Your task to perform on an android device: Open eBay Image 0: 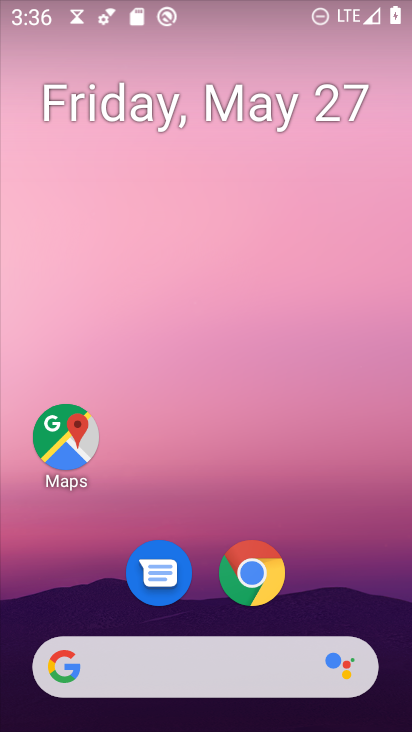
Step 0: click (253, 565)
Your task to perform on an android device: Open eBay Image 1: 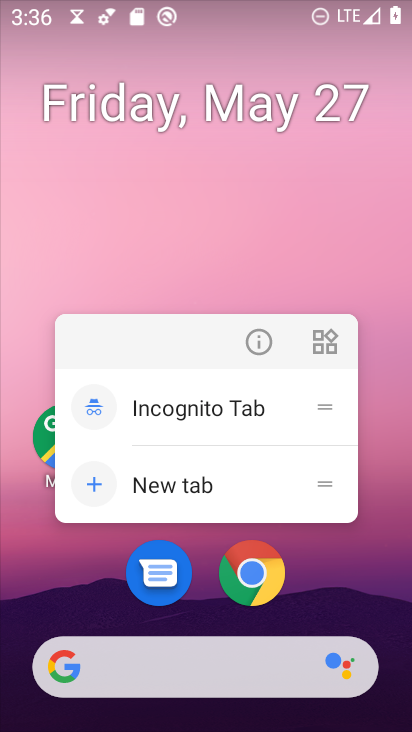
Step 1: click (253, 564)
Your task to perform on an android device: Open eBay Image 2: 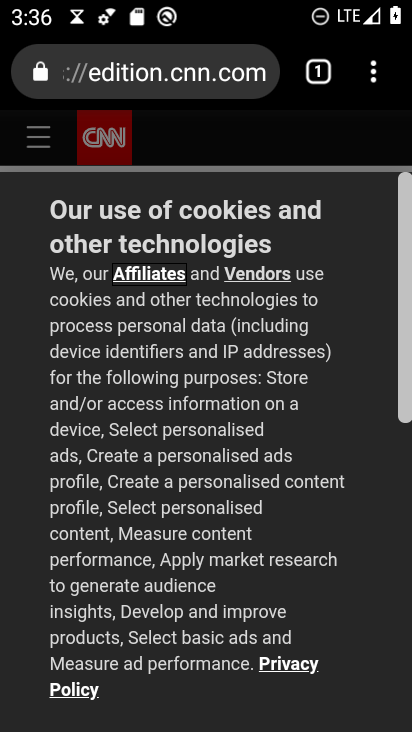
Step 2: click (159, 78)
Your task to perform on an android device: Open eBay Image 3: 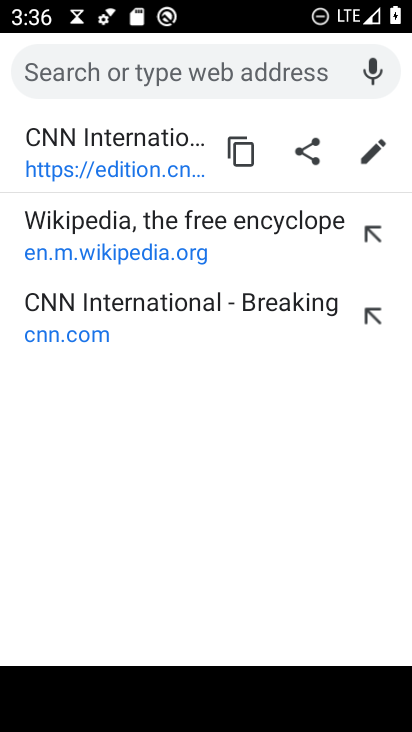
Step 3: type "ebay"
Your task to perform on an android device: Open eBay Image 4: 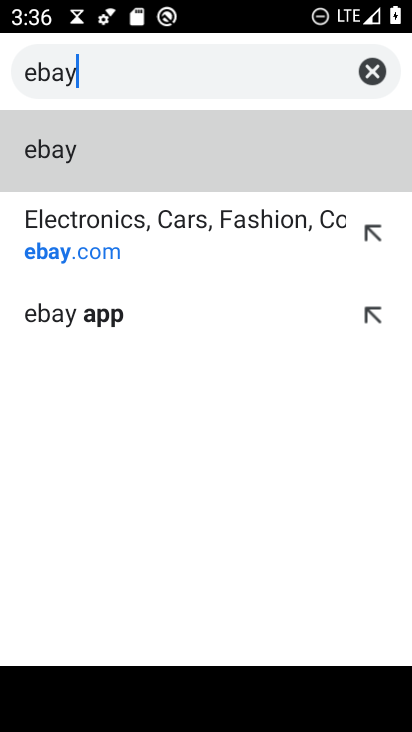
Step 4: click (35, 147)
Your task to perform on an android device: Open eBay Image 5: 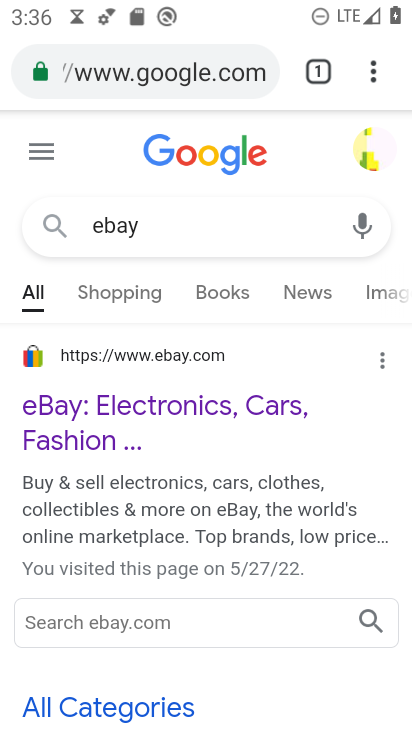
Step 5: click (52, 403)
Your task to perform on an android device: Open eBay Image 6: 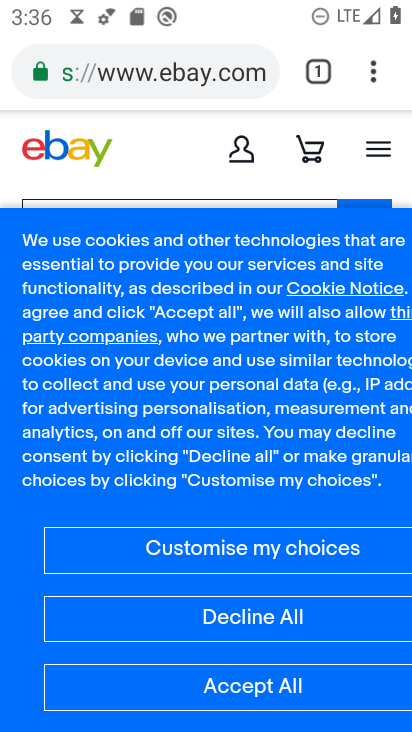
Step 6: task complete